Your task to perform on an android device: Go to notification settings Image 0: 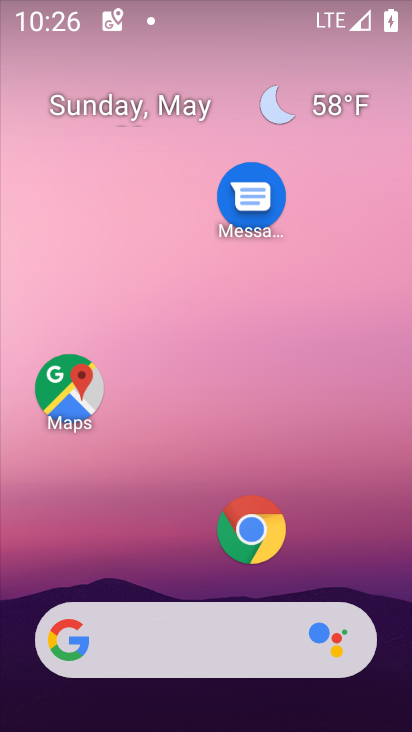
Step 0: drag from (184, 578) to (211, 234)
Your task to perform on an android device: Go to notification settings Image 1: 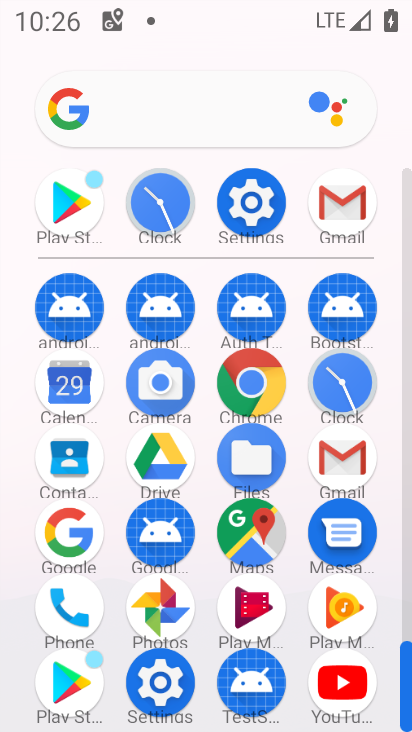
Step 1: click (253, 207)
Your task to perform on an android device: Go to notification settings Image 2: 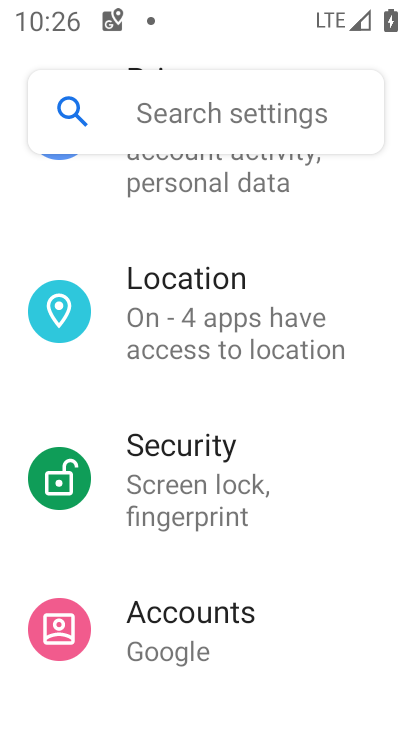
Step 2: drag from (231, 307) to (211, 511)
Your task to perform on an android device: Go to notification settings Image 3: 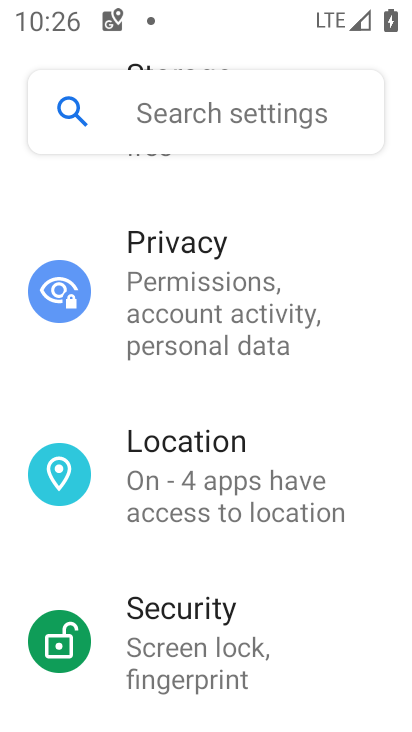
Step 3: drag from (232, 389) to (217, 559)
Your task to perform on an android device: Go to notification settings Image 4: 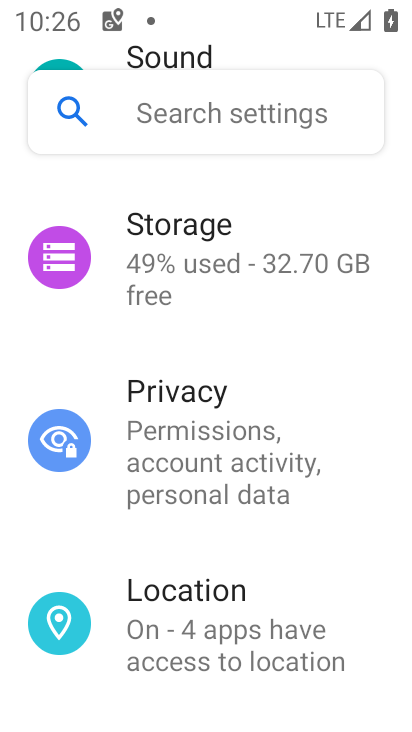
Step 4: drag from (281, 292) to (285, 458)
Your task to perform on an android device: Go to notification settings Image 5: 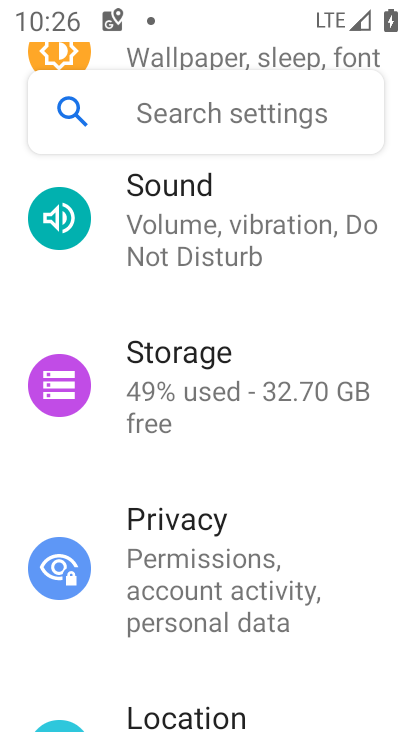
Step 5: drag from (286, 265) to (252, 494)
Your task to perform on an android device: Go to notification settings Image 6: 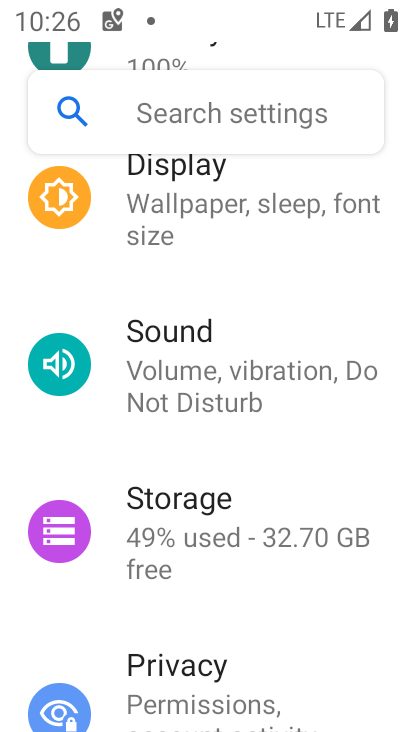
Step 6: drag from (258, 267) to (247, 651)
Your task to perform on an android device: Go to notification settings Image 7: 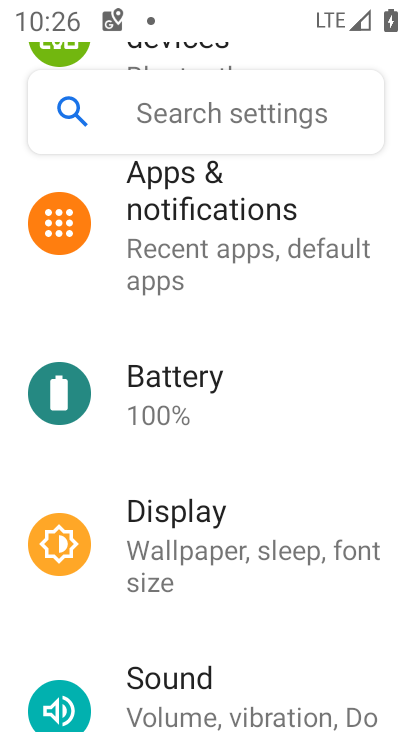
Step 7: drag from (275, 284) to (267, 416)
Your task to perform on an android device: Go to notification settings Image 8: 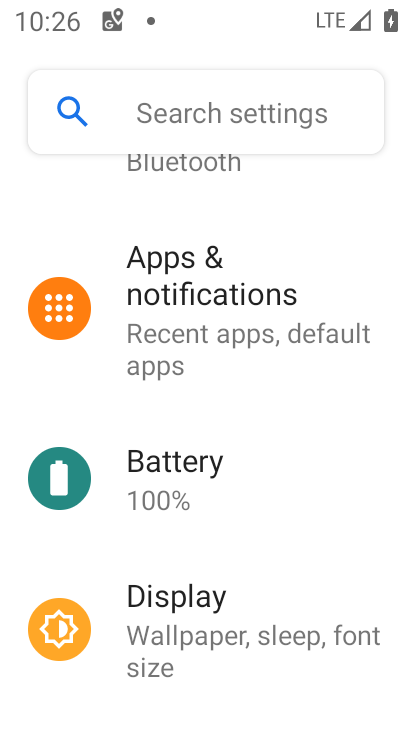
Step 8: click (243, 328)
Your task to perform on an android device: Go to notification settings Image 9: 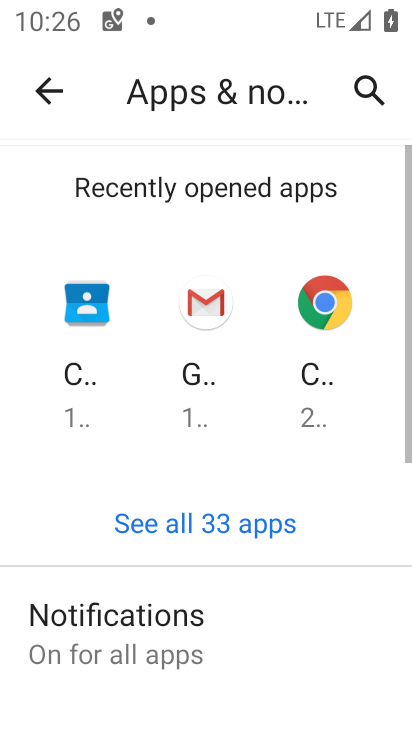
Step 9: drag from (192, 680) to (220, 509)
Your task to perform on an android device: Go to notification settings Image 10: 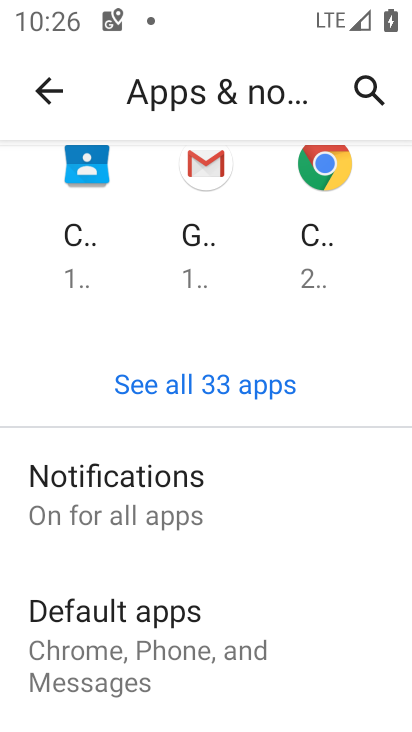
Step 10: click (140, 492)
Your task to perform on an android device: Go to notification settings Image 11: 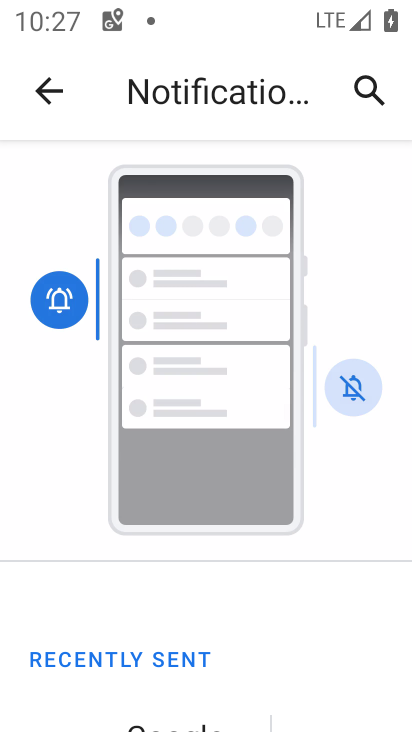
Step 11: task complete